Your task to perform on an android device: Is it going to rain tomorrow? Image 0: 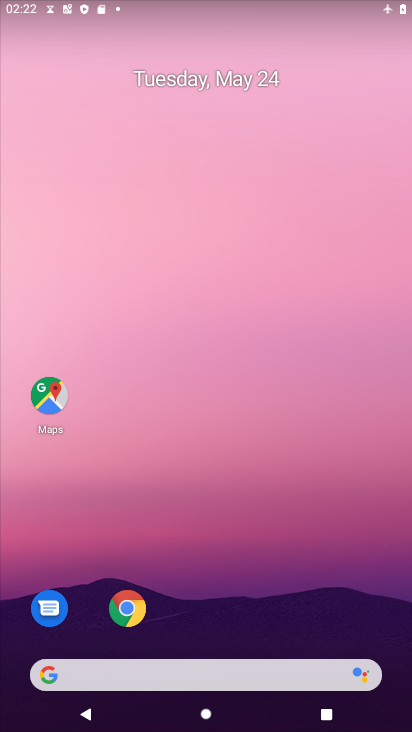
Step 0: drag from (217, 626) to (228, 67)
Your task to perform on an android device: Is it going to rain tomorrow? Image 1: 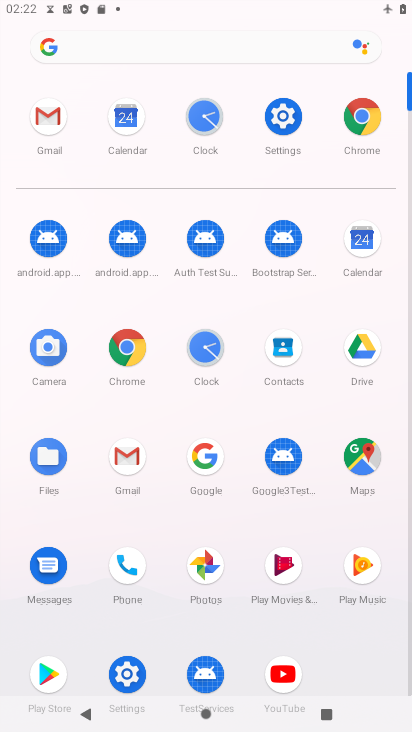
Step 1: click (363, 123)
Your task to perform on an android device: Is it going to rain tomorrow? Image 2: 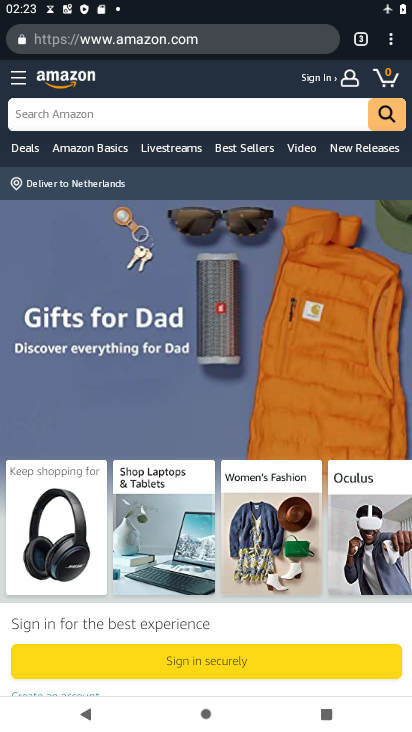
Step 2: click (253, 48)
Your task to perform on an android device: Is it going to rain tomorrow? Image 3: 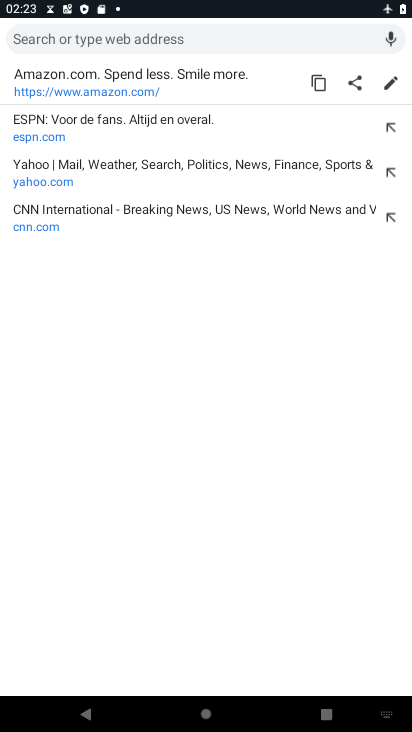
Step 3: type "Is it going to rain tomorrow?"
Your task to perform on an android device: Is it going to rain tomorrow? Image 4: 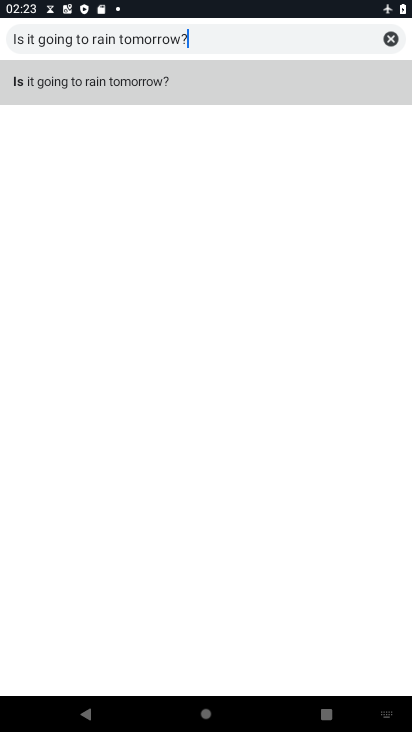
Step 4: click (64, 80)
Your task to perform on an android device: Is it going to rain tomorrow? Image 5: 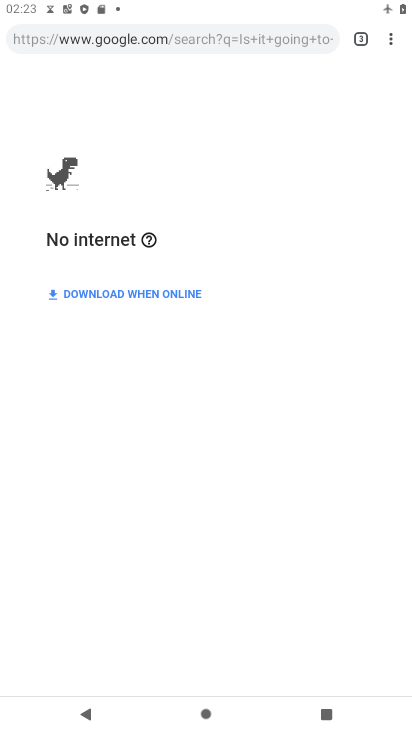
Step 5: task complete